Your task to perform on an android device: open a bookmark in the chrome app Image 0: 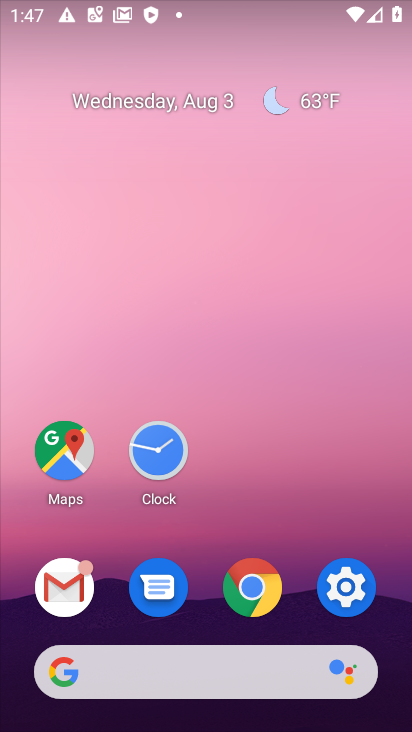
Step 0: click (260, 586)
Your task to perform on an android device: open a bookmark in the chrome app Image 1: 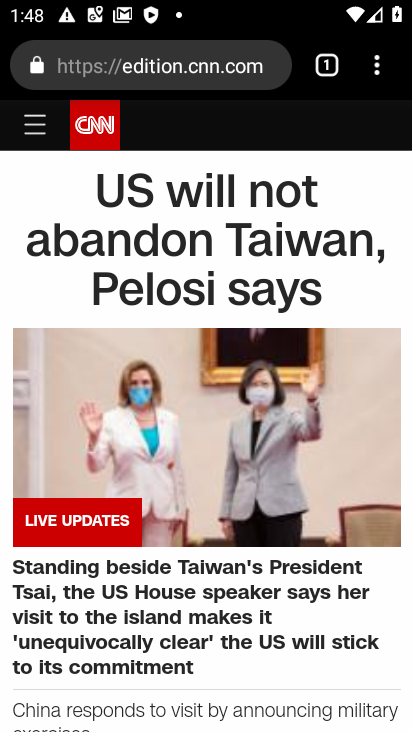
Step 1: click (377, 62)
Your task to perform on an android device: open a bookmark in the chrome app Image 2: 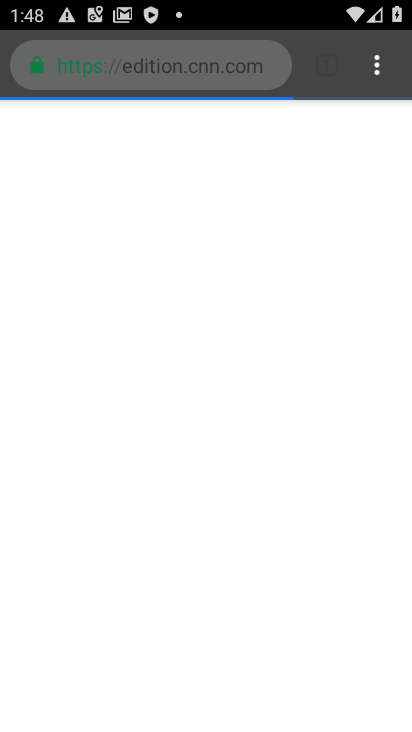
Step 2: click (384, 72)
Your task to perform on an android device: open a bookmark in the chrome app Image 3: 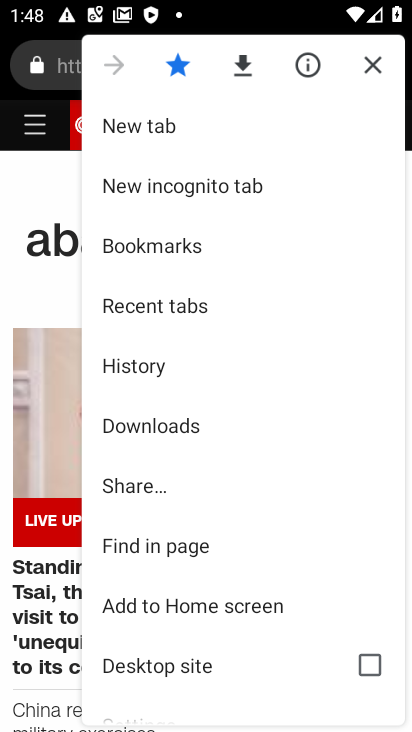
Step 3: click (149, 242)
Your task to perform on an android device: open a bookmark in the chrome app Image 4: 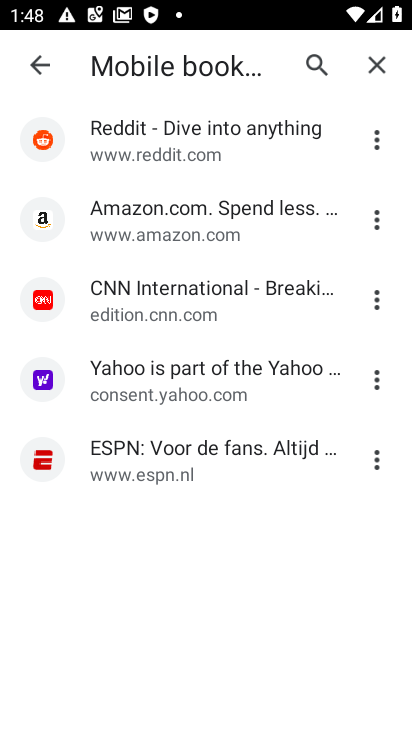
Step 4: task complete